Your task to perform on an android device: Go to Maps Image 0: 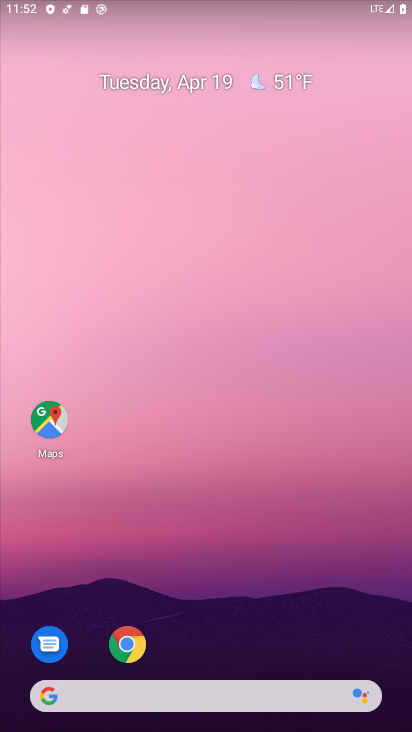
Step 0: drag from (206, 725) to (199, 122)
Your task to perform on an android device: Go to Maps Image 1: 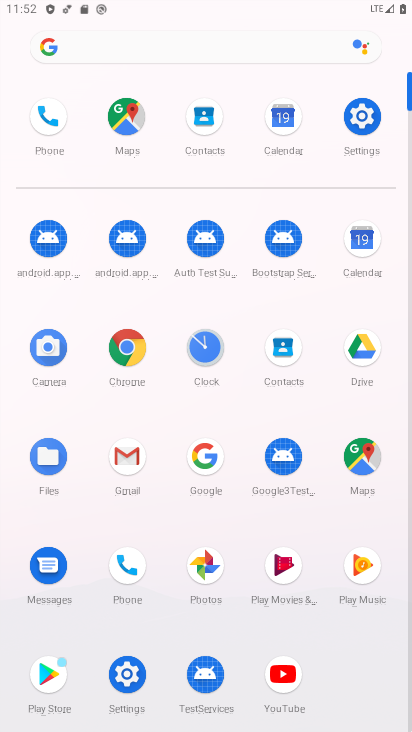
Step 1: click (359, 460)
Your task to perform on an android device: Go to Maps Image 2: 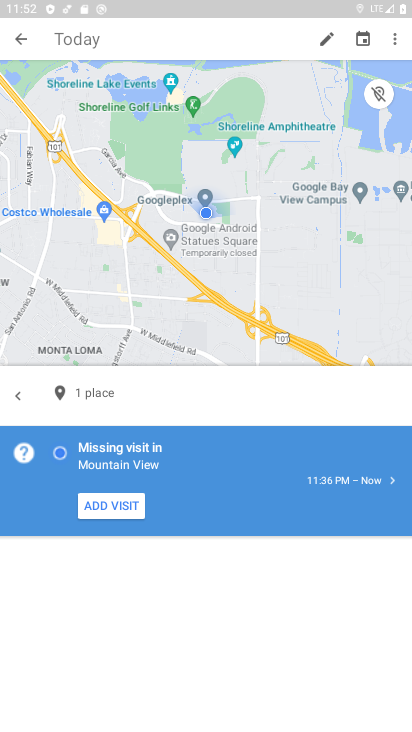
Step 2: click (20, 33)
Your task to perform on an android device: Go to Maps Image 3: 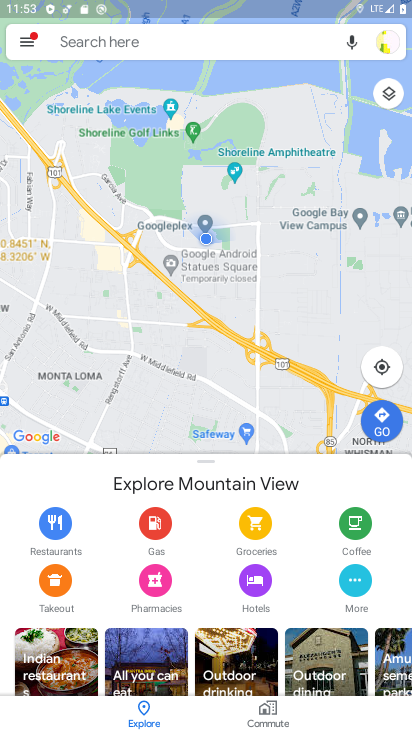
Step 3: task complete